Your task to perform on an android device: find photos in the google photos app Image 0: 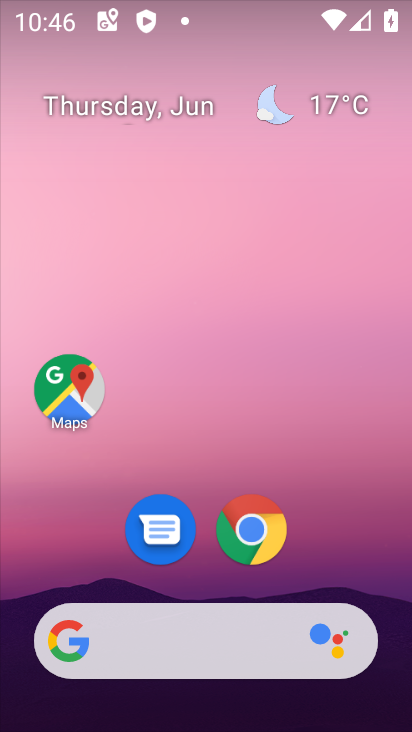
Step 0: drag from (324, 577) to (404, 13)
Your task to perform on an android device: find photos in the google photos app Image 1: 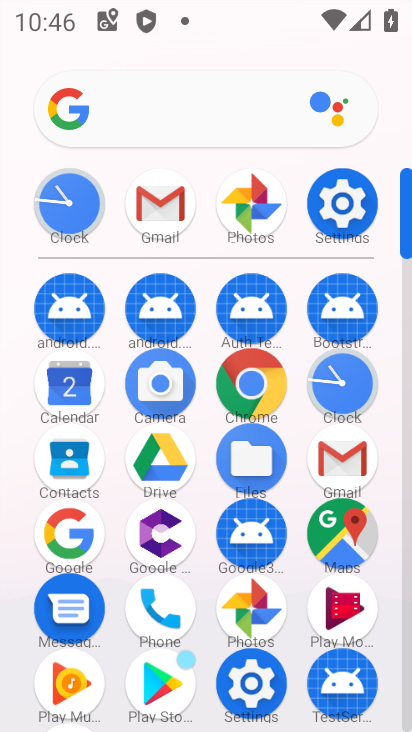
Step 1: click (242, 606)
Your task to perform on an android device: find photos in the google photos app Image 2: 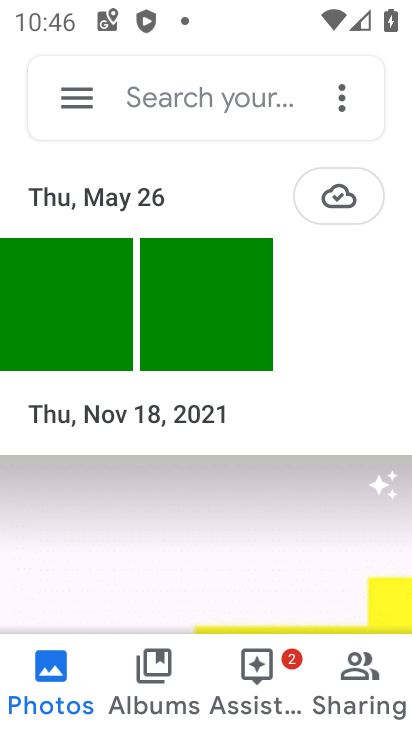
Step 2: task complete